Your task to perform on an android device: open app "Life360: Find Family & Friends" (install if not already installed) Image 0: 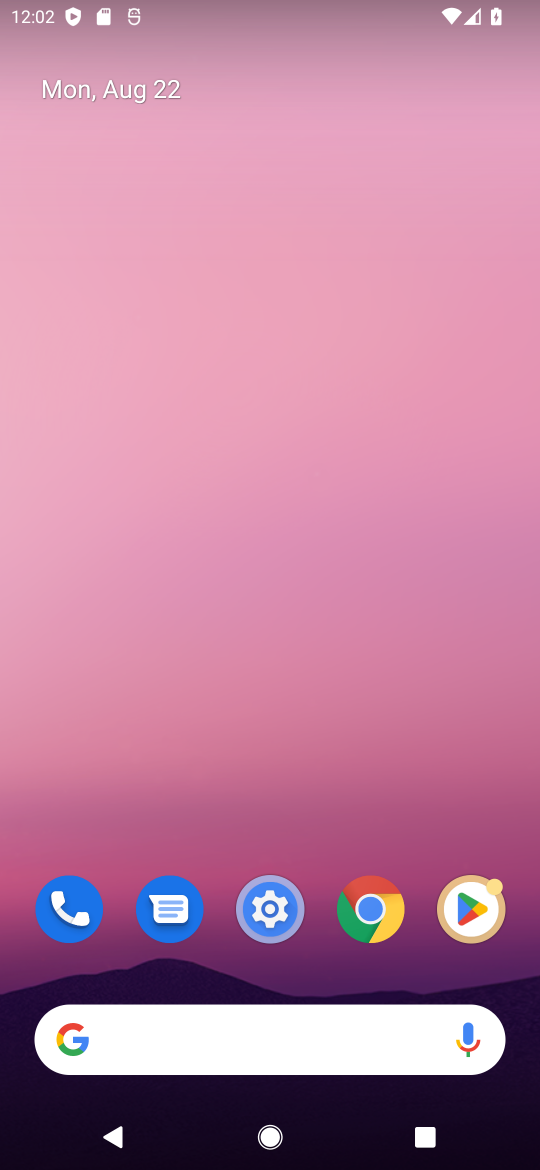
Step 0: click (463, 917)
Your task to perform on an android device: open app "Life360: Find Family & Friends" (install if not already installed) Image 1: 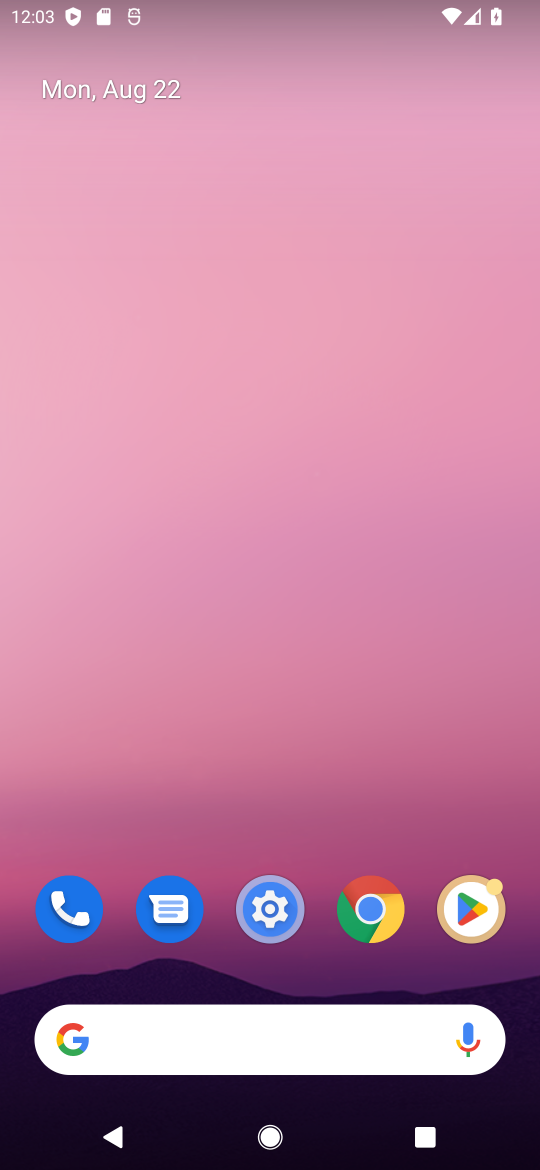
Step 1: click (473, 903)
Your task to perform on an android device: open app "Life360: Find Family & Friends" (install if not already installed) Image 2: 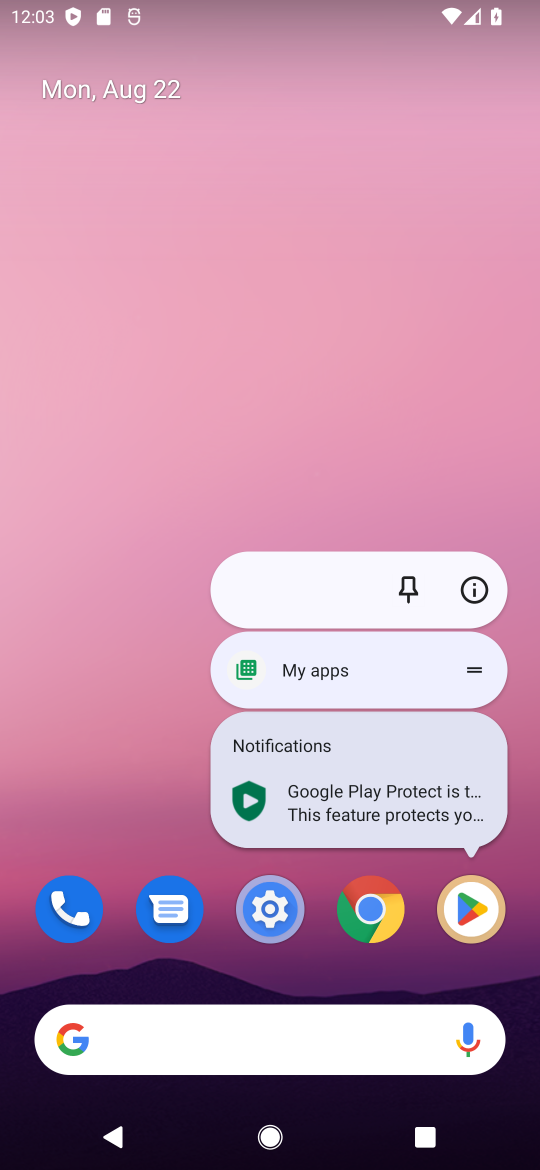
Step 2: click (471, 916)
Your task to perform on an android device: open app "Life360: Find Family & Friends" (install if not already installed) Image 3: 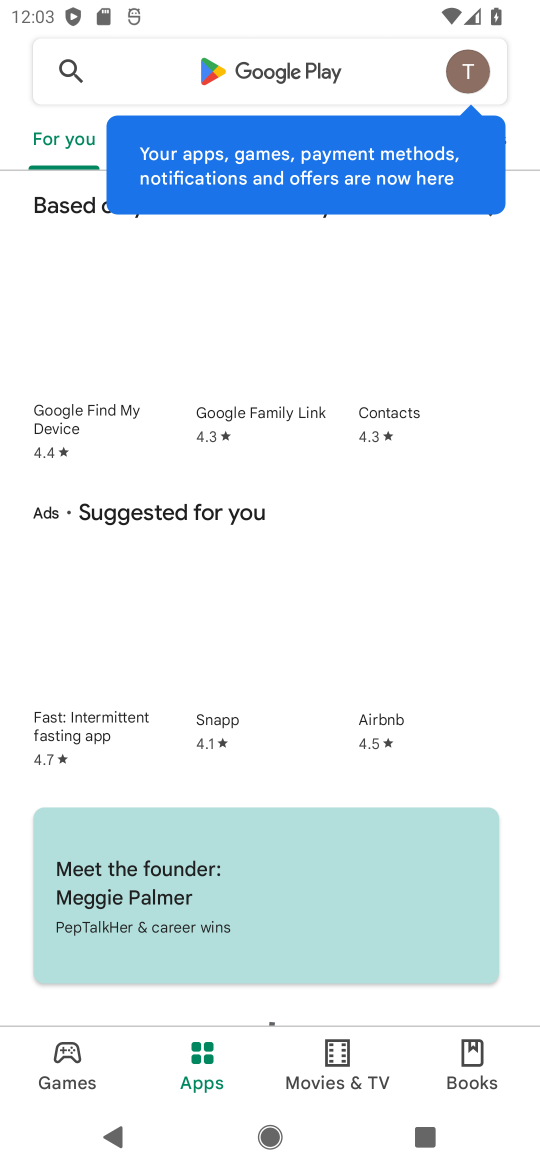
Step 3: click (258, 82)
Your task to perform on an android device: open app "Life360: Find Family & Friends" (install if not already installed) Image 4: 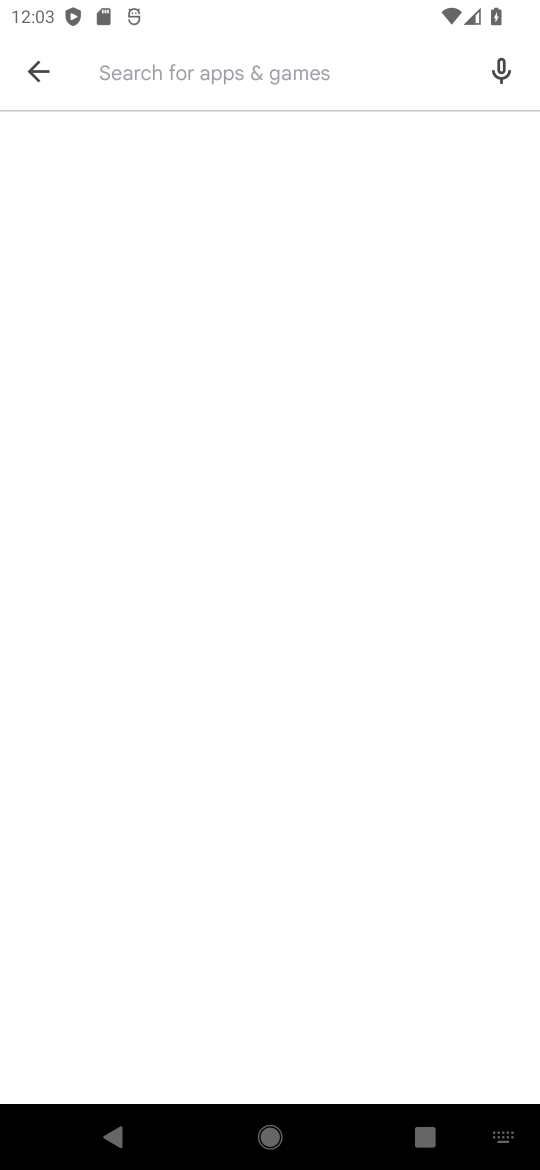
Step 4: type "life360"
Your task to perform on an android device: open app "Life360: Find Family & Friends" (install if not already installed) Image 5: 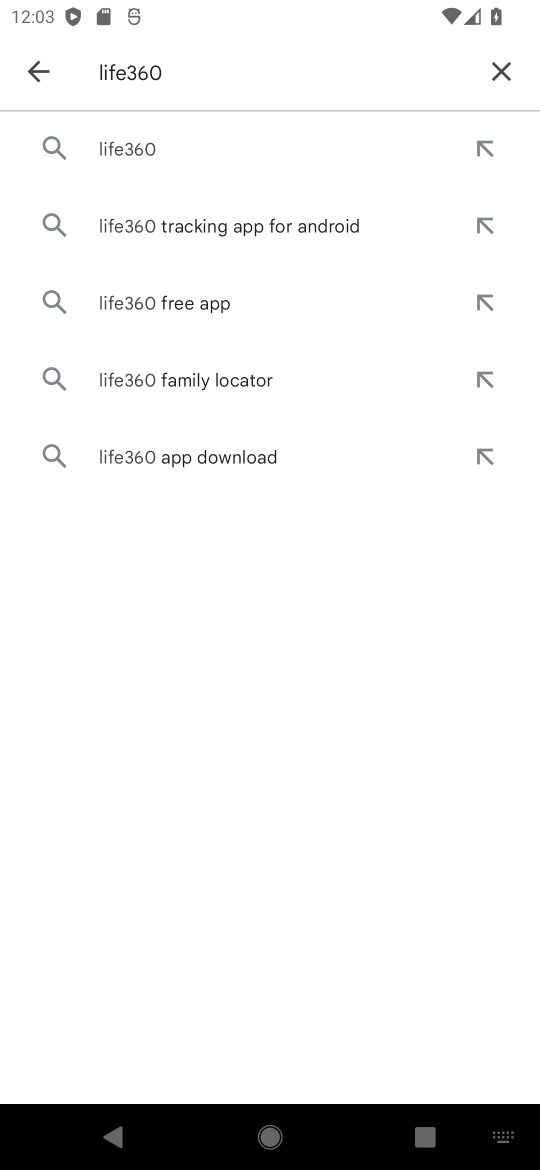
Step 5: click (116, 138)
Your task to perform on an android device: open app "Life360: Find Family & Friends" (install if not already installed) Image 6: 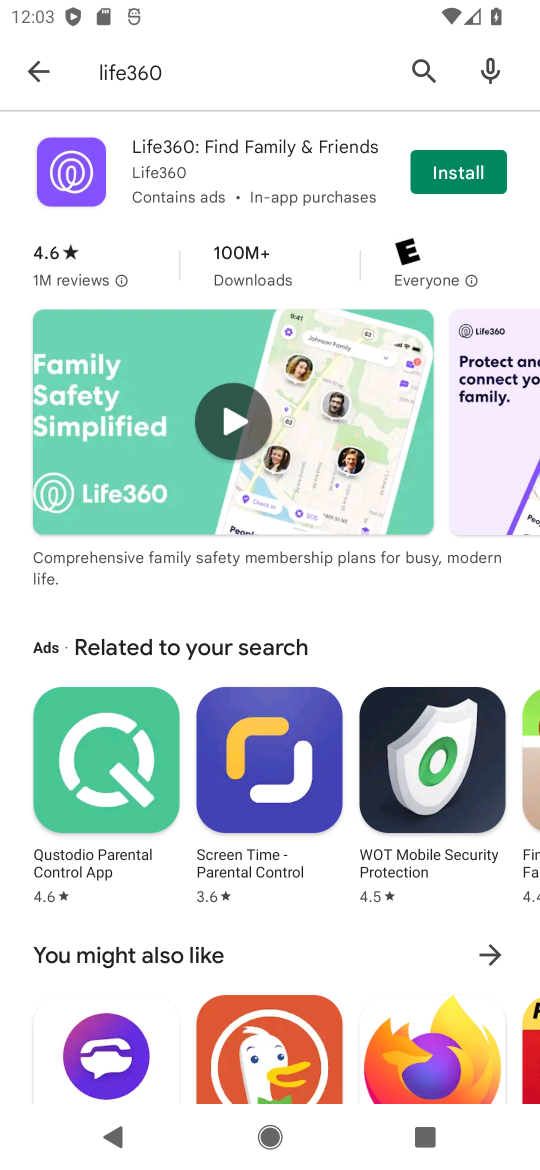
Step 6: click (468, 171)
Your task to perform on an android device: open app "Life360: Find Family & Friends" (install if not already installed) Image 7: 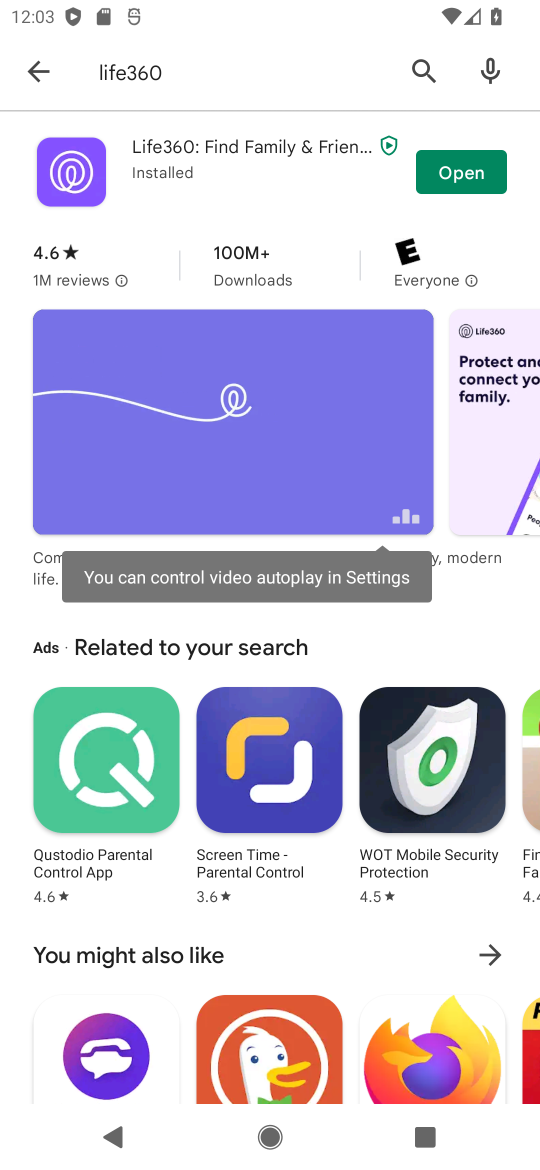
Step 7: click (432, 183)
Your task to perform on an android device: open app "Life360: Find Family & Friends" (install if not already installed) Image 8: 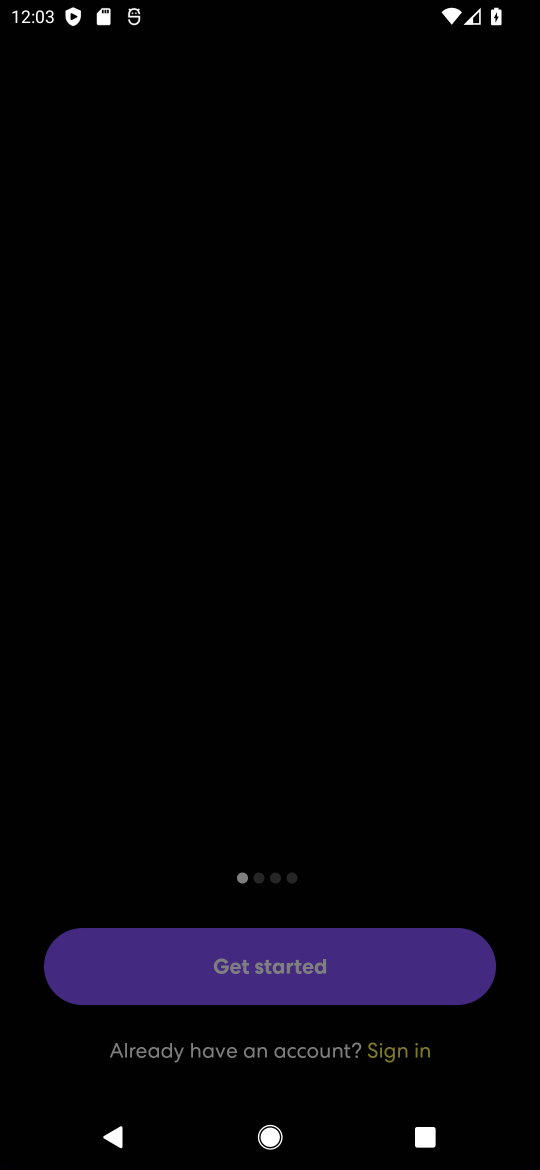
Step 8: task complete